Your task to perform on an android device: turn on notifications settings in the gmail app Image 0: 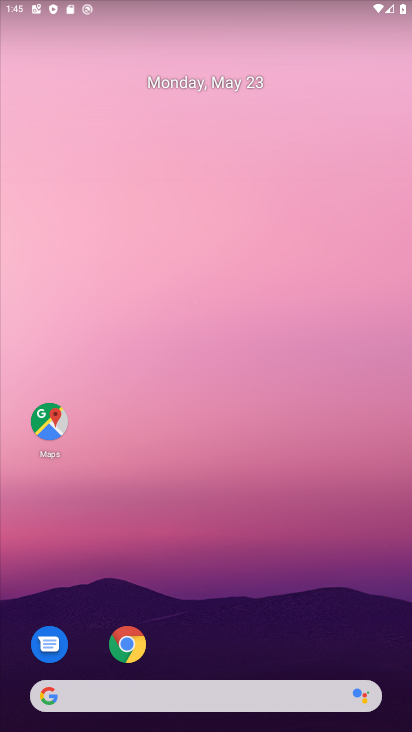
Step 0: drag from (210, 552) to (235, 1)
Your task to perform on an android device: turn on notifications settings in the gmail app Image 1: 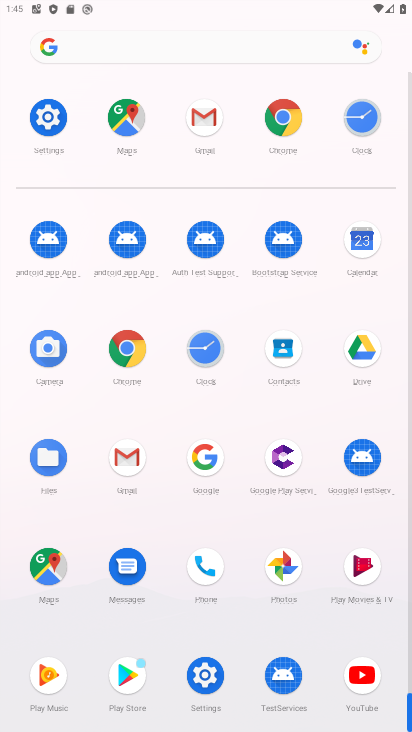
Step 1: drag from (4, 598) to (32, 223)
Your task to perform on an android device: turn on notifications settings in the gmail app Image 2: 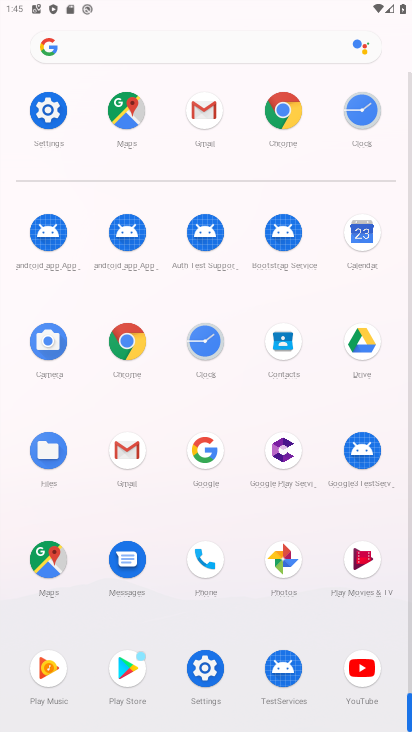
Step 2: click (126, 445)
Your task to perform on an android device: turn on notifications settings in the gmail app Image 3: 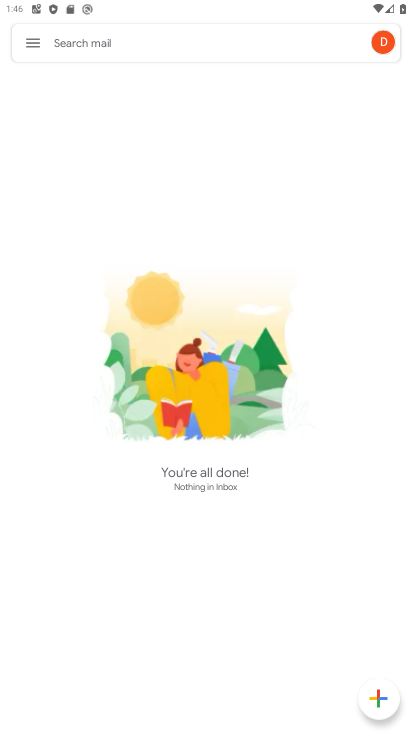
Step 3: click (18, 41)
Your task to perform on an android device: turn on notifications settings in the gmail app Image 4: 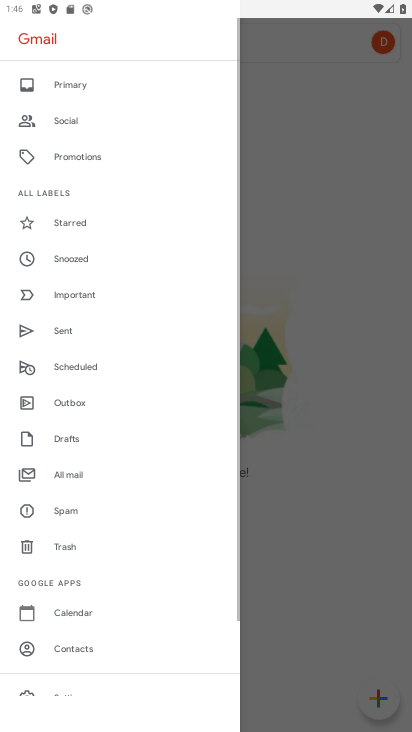
Step 4: drag from (132, 582) to (166, 178)
Your task to perform on an android device: turn on notifications settings in the gmail app Image 5: 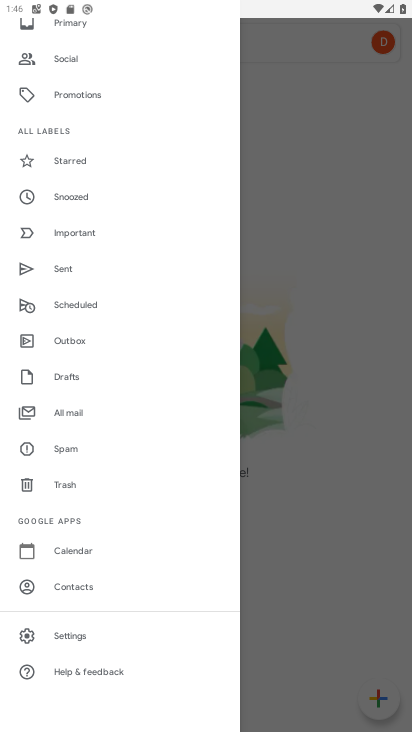
Step 5: drag from (136, 193) to (158, 700)
Your task to perform on an android device: turn on notifications settings in the gmail app Image 6: 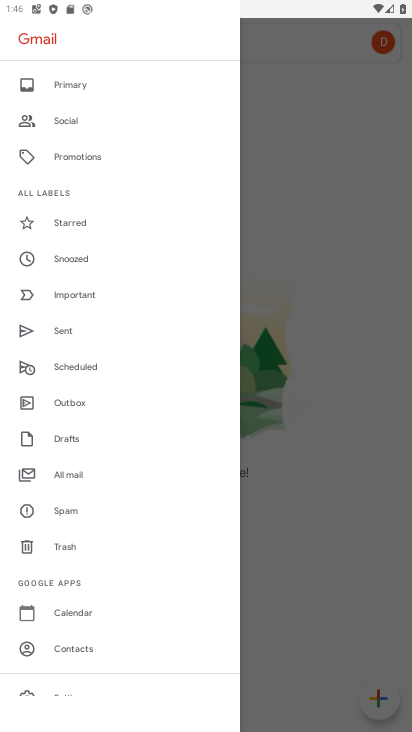
Step 6: drag from (123, 627) to (146, 196)
Your task to perform on an android device: turn on notifications settings in the gmail app Image 7: 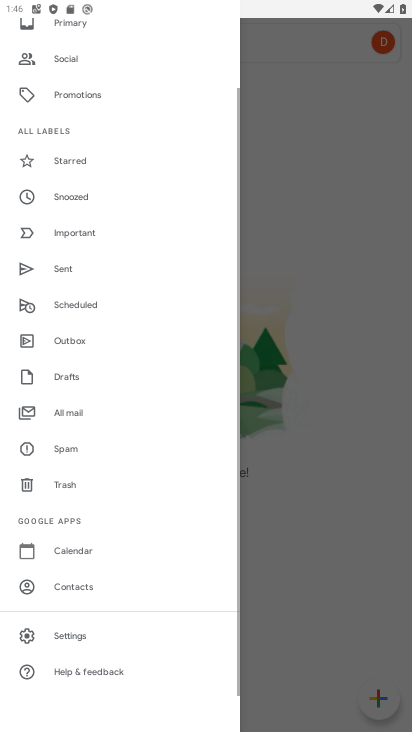
Step 7: click (76, 634)
Your task to perform on an android device: turn on notifications settings in the gmail app Image 8: 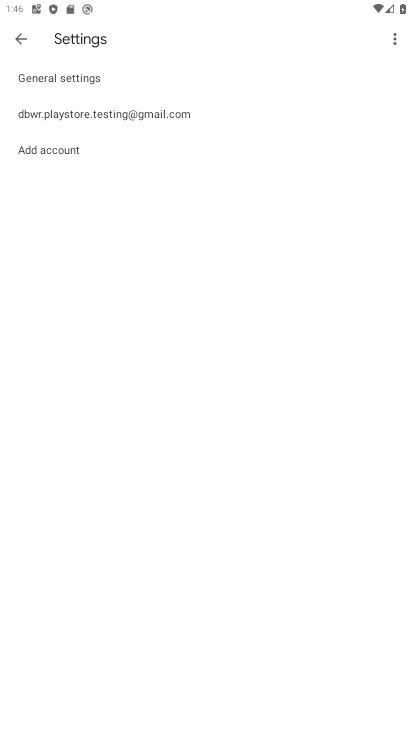
Step 8: click (84, 109)
Your task to perform on an android device: turn on notifications settings in the gmail app Image 9: 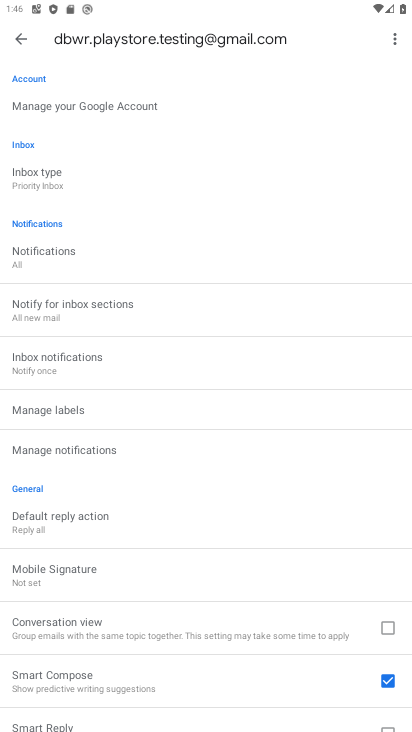
Step 9: click (87, 450)
Your task to perform on an android device: turn on notifications settings in the gmail app Image 10: 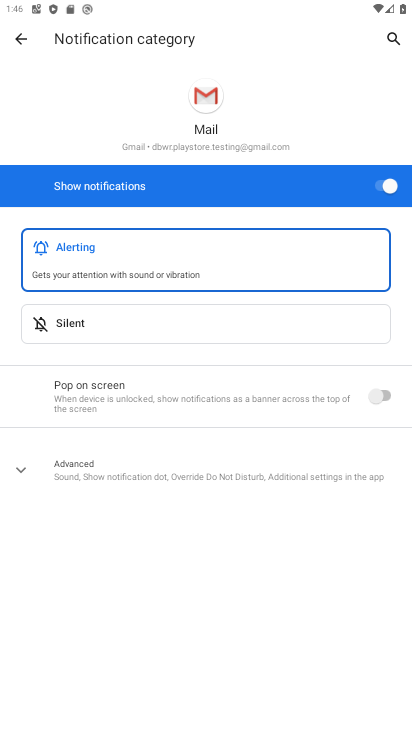
Step 10: task complete